Your task to perform on an android device: change the clock display to analog Image 0: 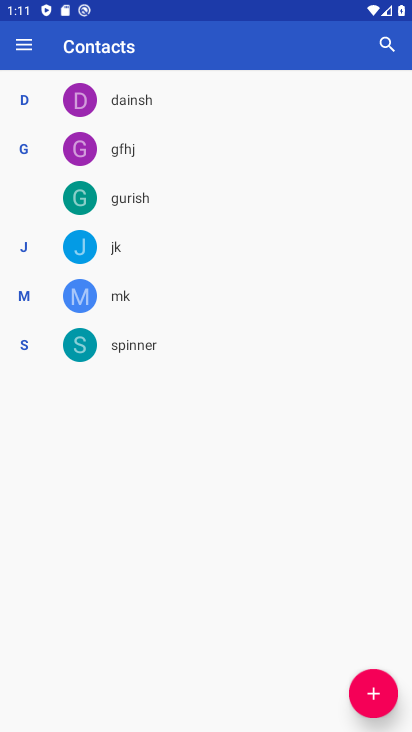
Step 0: press home button
Your task to perform on an android device: change the clock display to analog Image 1: 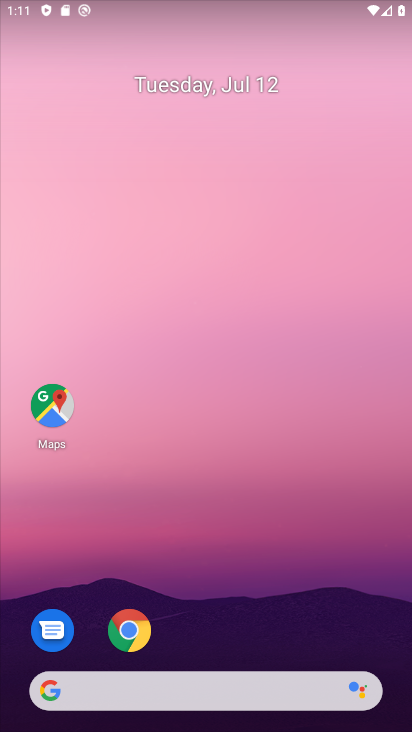
Step 1: drag from (174, 661) to (102, 21)
Your task to perform on an android device: change the clock display to analog Image 2: 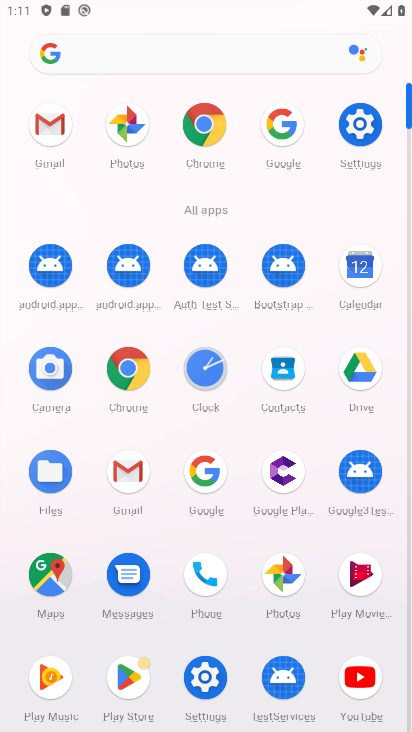
Step 2: click (194, 381)
Your task to perform on an android device: change the clock display to analog Image 3: 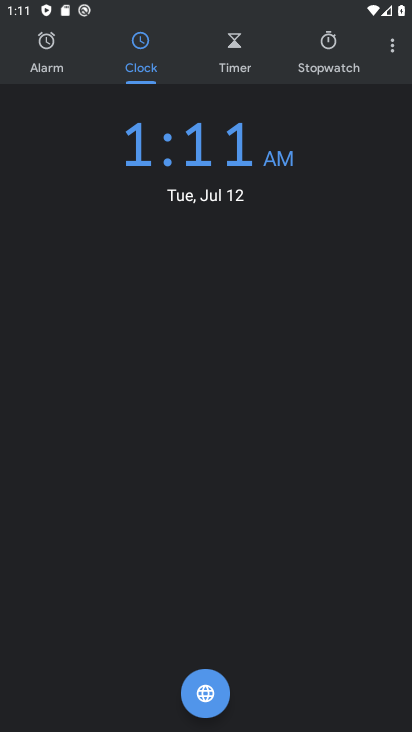
Step 3: click (396, 45)
Your task to perform on an android device: change the clock display to analog Image 4: 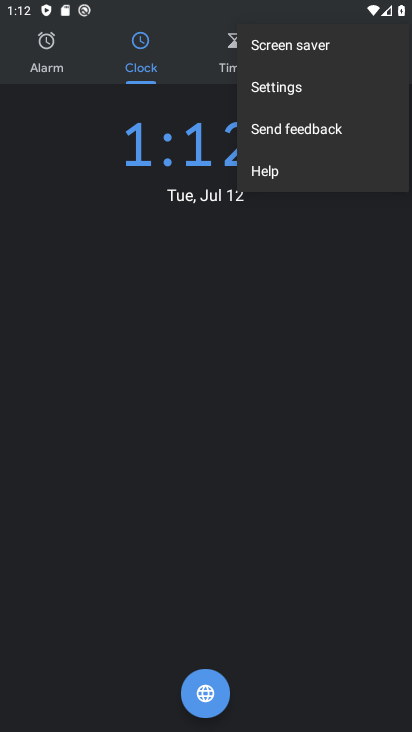
Step 4: click (276, 88)
Your task to perform on an android device: change the clock display to analog Image 5: 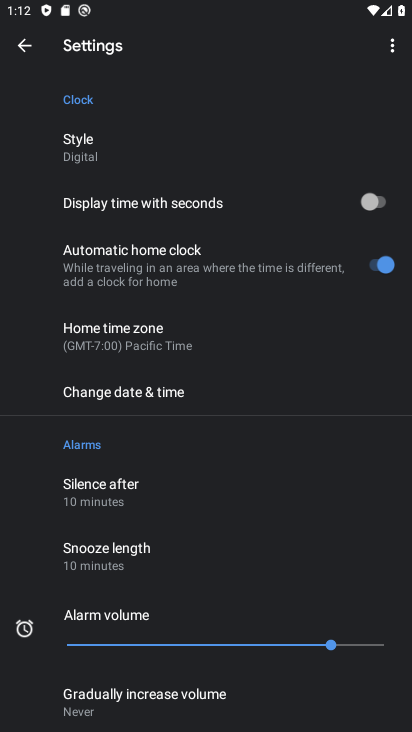
Step 5: click (64, 144)
Your task to perform on an android device: change the clock display to analog Image 6: 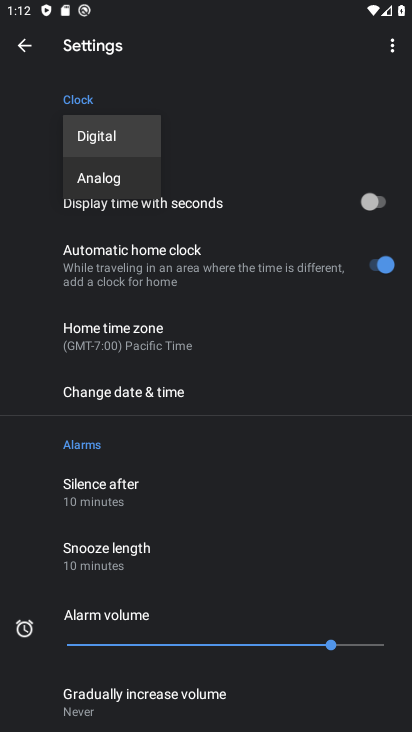
Step 6: click (111, 183)
Your task to perform on an android device: change the clock display to analog Image 7: 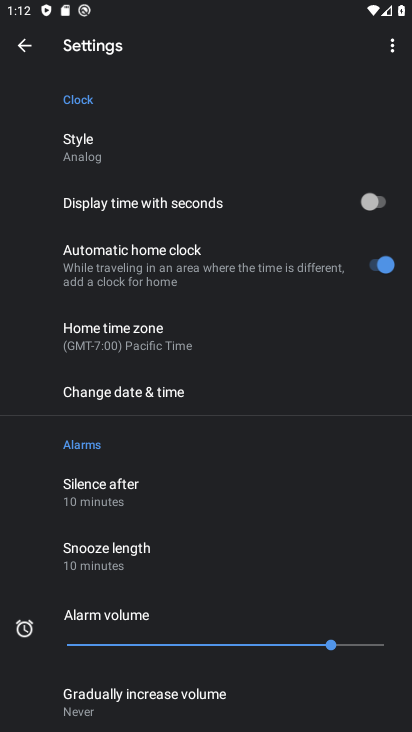
Step 7: task complete